Your task to perform on an android device: Go to Reddit.com Image 0: 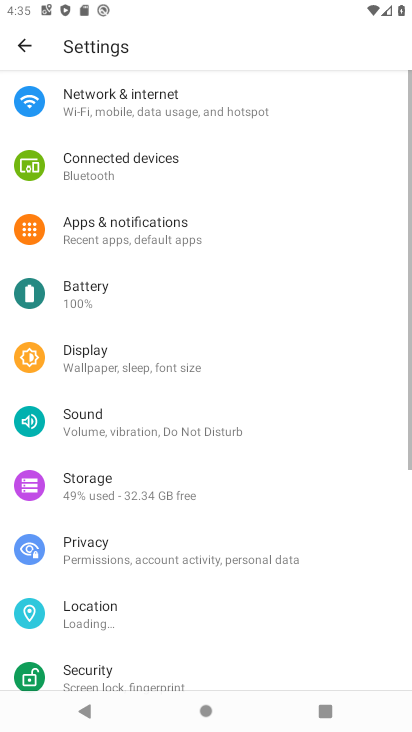
Step 0: press home button
Your task to perform on an android device: Go to Reddit.com Image 1: 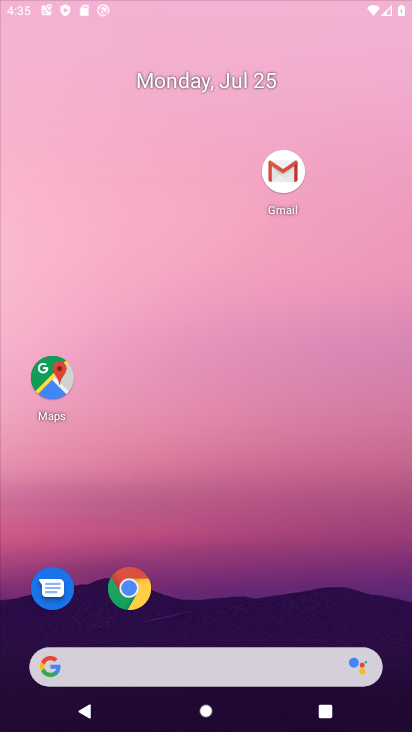
Step 1: drag from (353, 587) to (344, 56)
Your task to perform on an android device: Go to Reddit.com Image 2: 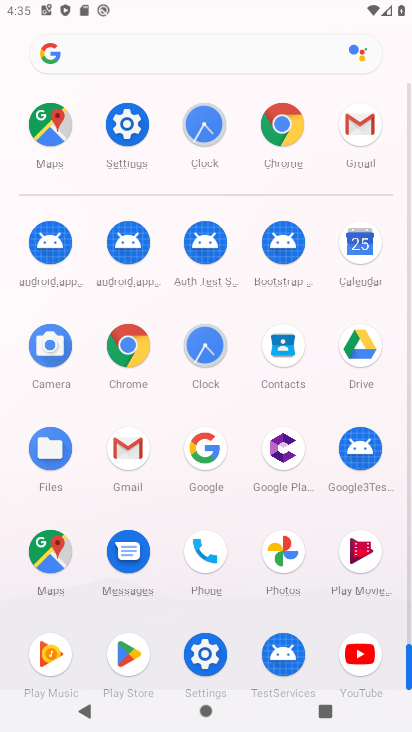
Step 2: click (285, 123)
Your task to perform on an android device: Go to Reddit.com Image 3: 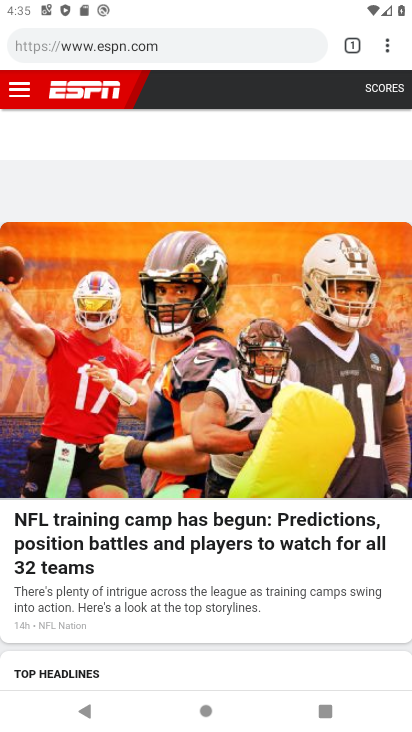
Step 3: click (192, 43)
Your task to perform on an android device: Go to Reddit.com Image 4: 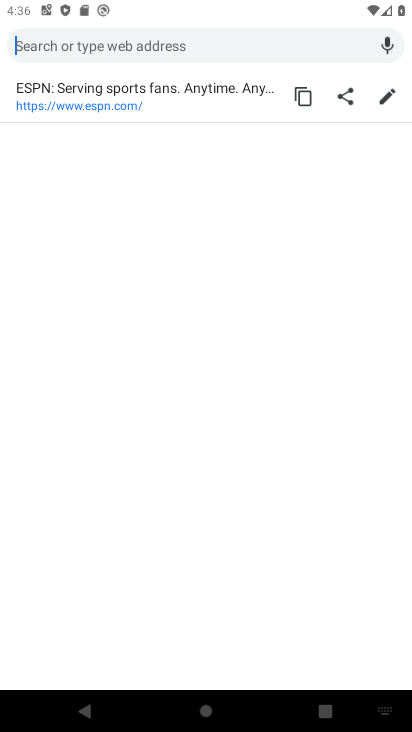
Step 4: type "reddit.com"
Your task to perform on an android device: Go to Reddit.com Image 5: 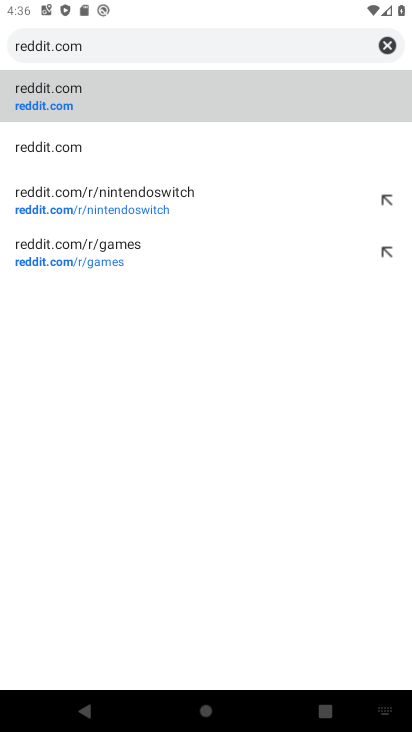
Step 5: click (50, 110)
Your task to perform on an android device: Go to Reddit.com Image 6: 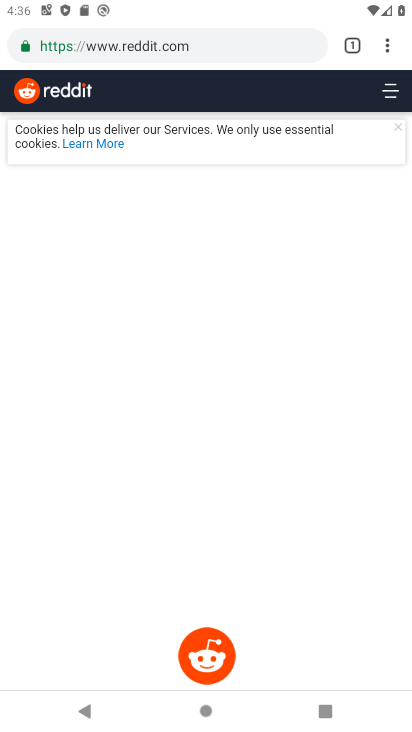
Step 6: task complete